Your task to perform on an android device: turn on improve location accuracy Image 0: 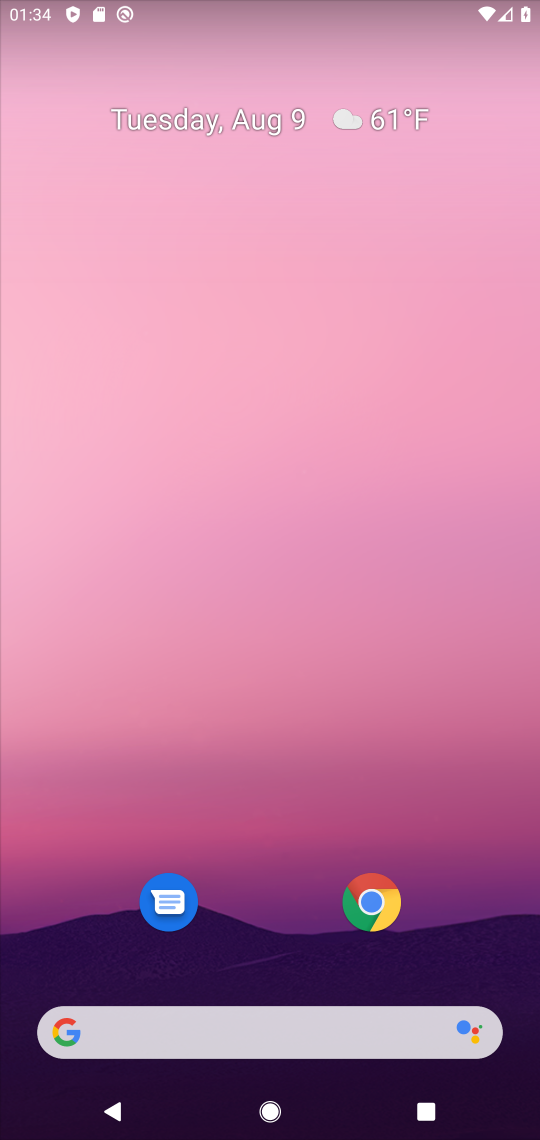
Step 0: drag from (325, 1007) to (308, 292)
Your task to perform on an android device: turn on improve location accuracy Image 1: 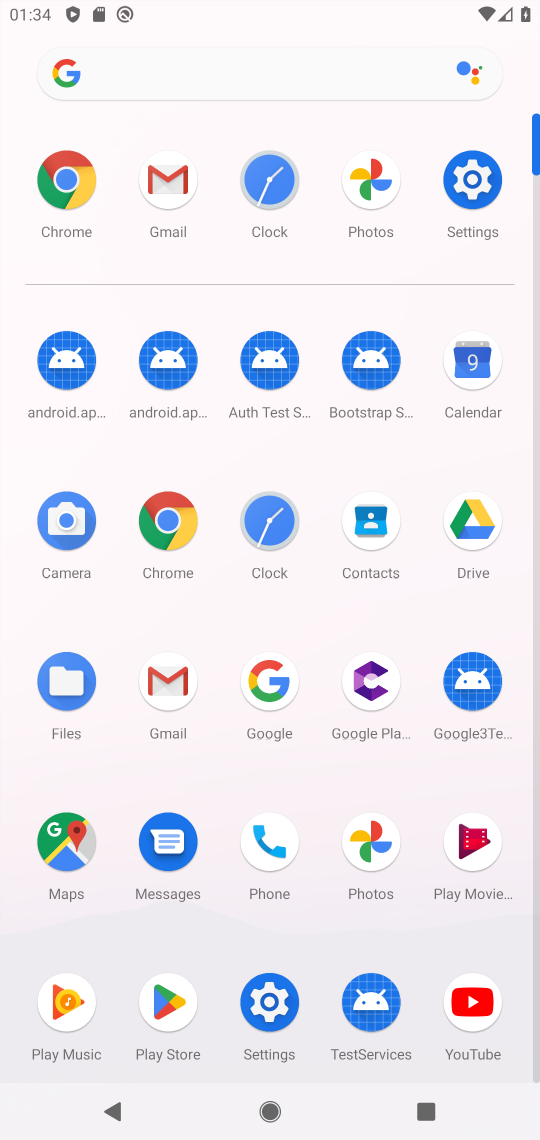
Step 1: click (459, 173)
Your task to perform on an android device: turn on improve location accuracy Image 2: 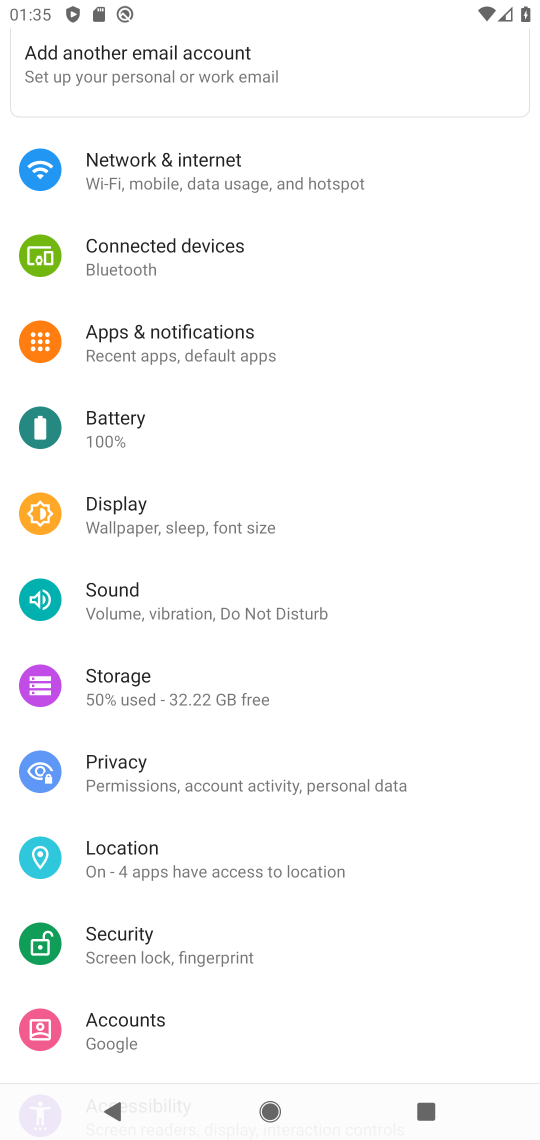
Step 2: click (133, 856)
Your task to perform on an android device: turn on improve location accuracy Image 3: 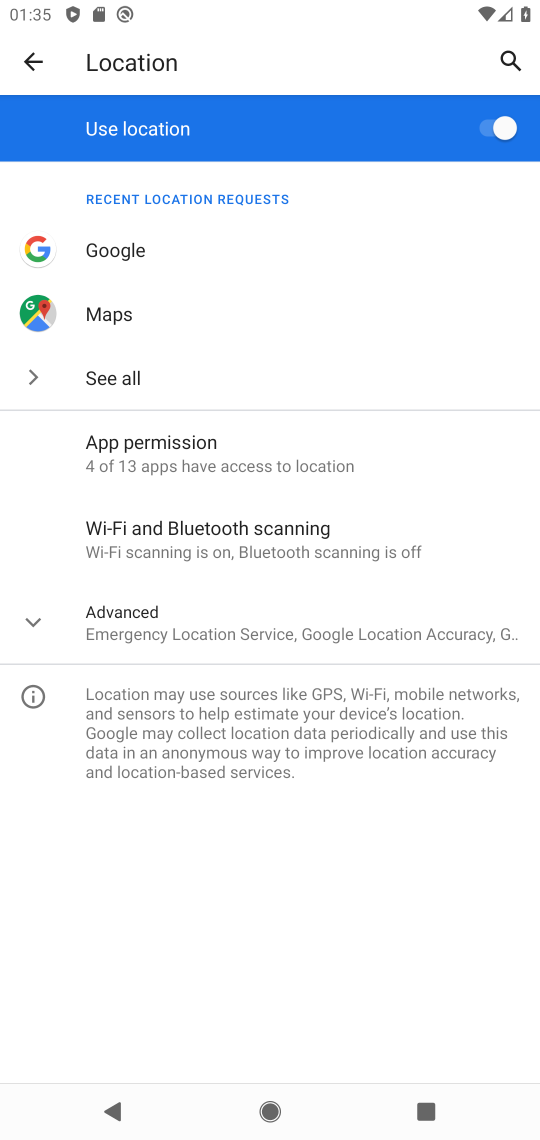
Step 3: click (136, 616)
Your task to perform on an android device: turn on improve location accuracy Image 4: 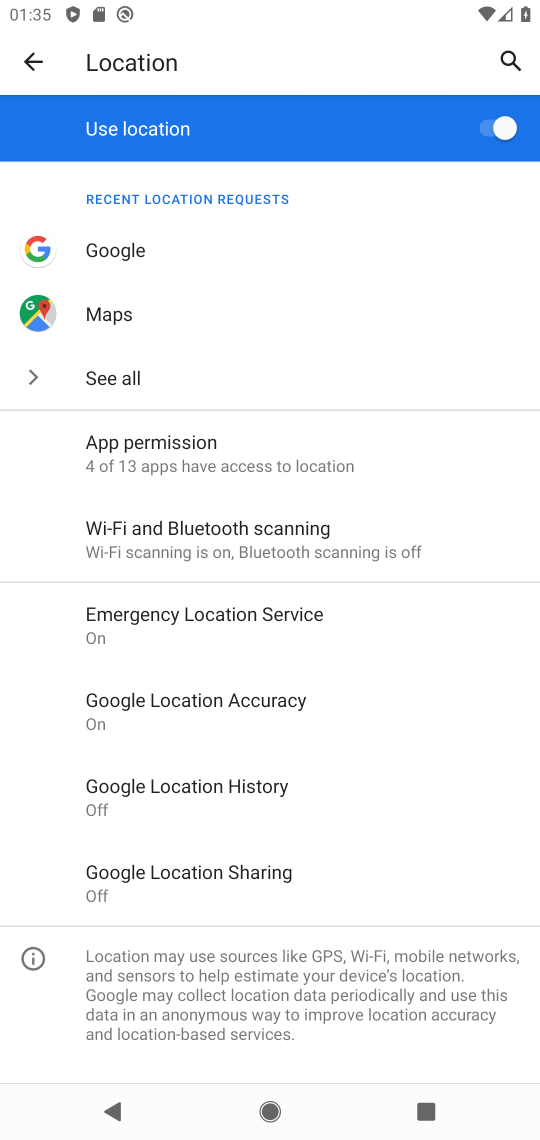
Step 4: click (133, 720)
Your task to perform on an android device: turn on improve location accuracy Image 5: 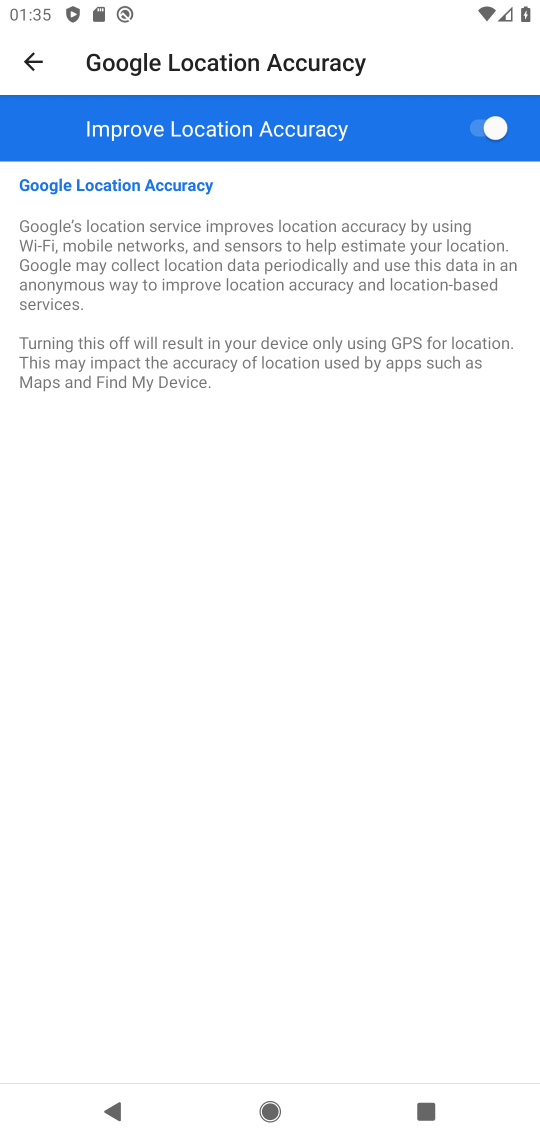
Step 5: task complete